Your task to perform on an android device: Open Google Maps and go to "Timeline" Image 0: 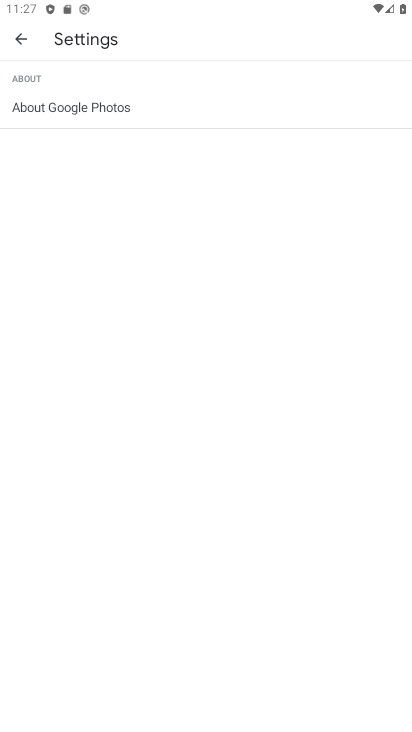
Step 0: press home button
Your task to perform on an android device: Open Google Maps and go to "Timeline" Image 1: 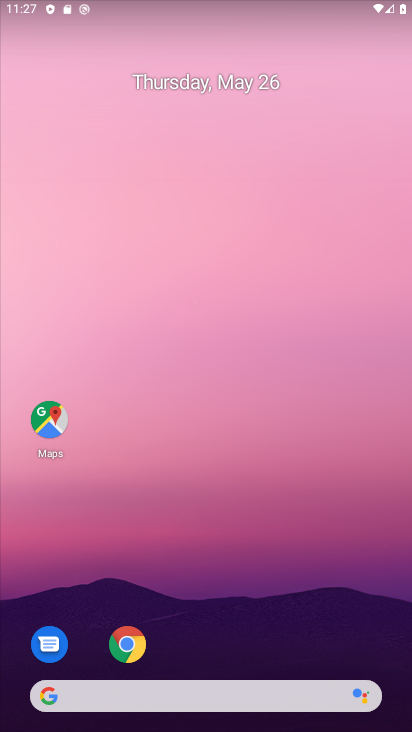
Step 1: click (44, 405)
Your task to perform on an android device: Open Google Maps and go to "Timeline" Image 2: 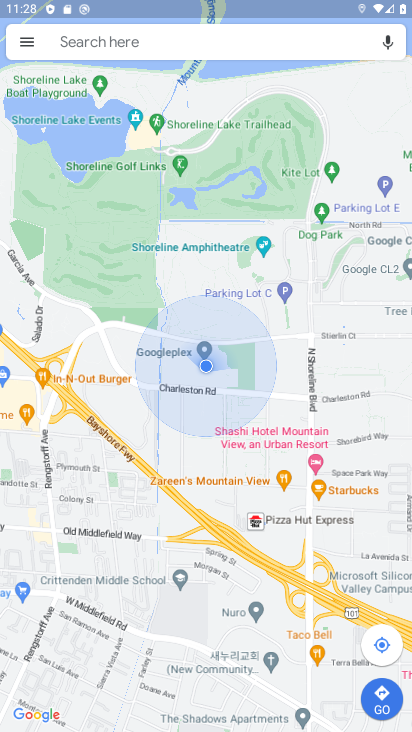
Step 2: click (30, 37)
Your task to perform on an android device: Open Google Maps and go to "Timeline" Image 3: 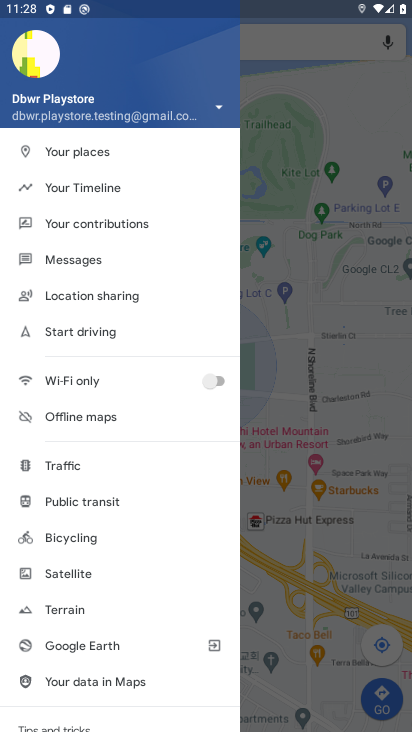
Step 3: click (104, 184)
Your task to perform on an android device: Open Google Maps and go to "Timeline" Image 4: 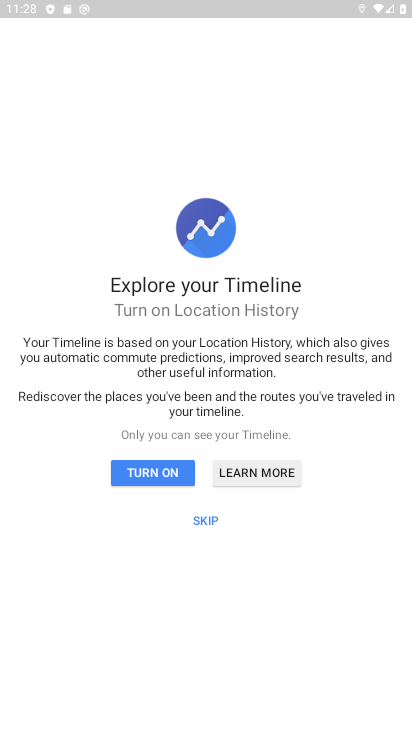
Step 4: click (163, 470)
Your task to perform on an android device: Open Google Maps and go to "Timeline" Image 5: 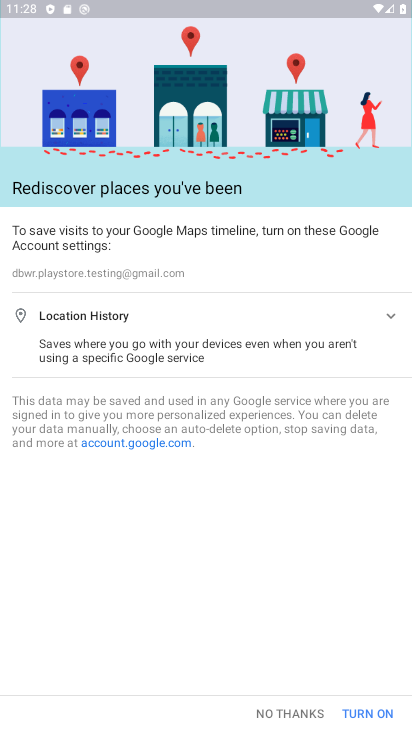
Step 5: task complete